Your task to perform on an android device: Go to internet settings Image 0: 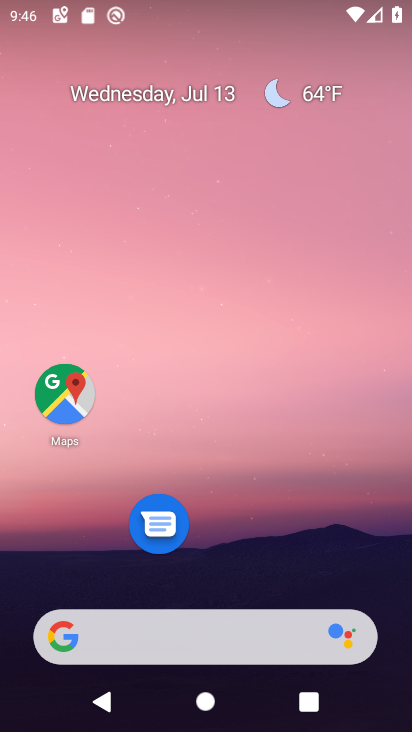
Step 0: drag from (210, 610) to (155, 73)
Your task to perform on an android device: Go to internet settings Image 1: 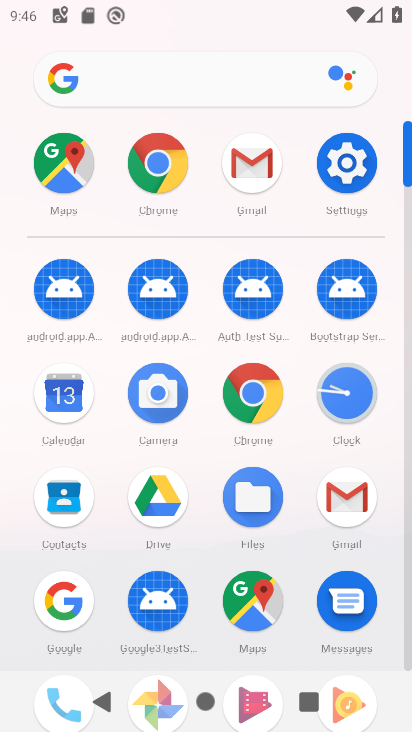
Step 1: click (353, 163)
Your task to perform on an android device: Go to internet settings Image 2: 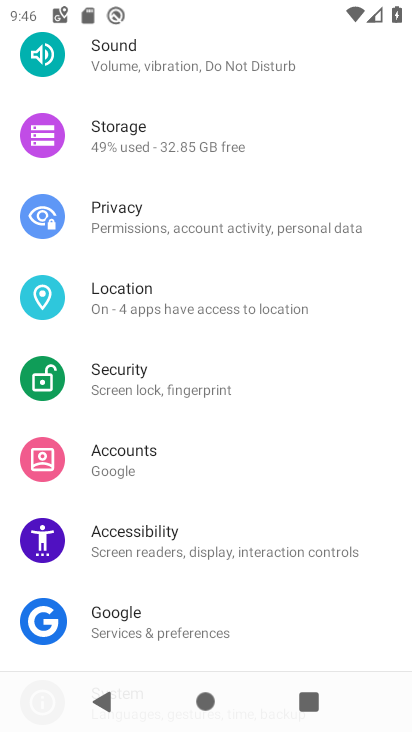
Step 2: drag from (150, 173) to (174, 386)
Your task to perform on an android device: Go to internet settings Image 3: 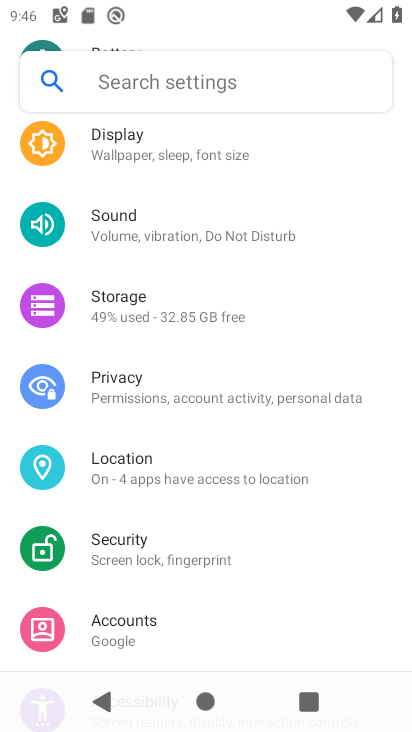
Step 3: drag from (163, 238) to (206, 477)
Your task to perform on an android device: Go to internet settings Image 4: 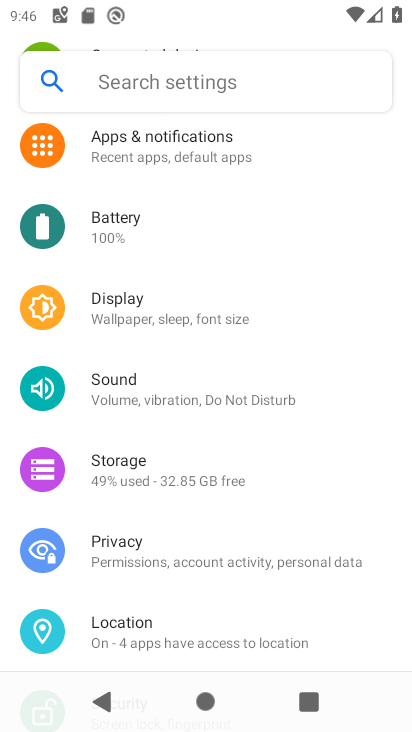
Step 4: drag from (154, 195) to (187, 583)
Your task to perform on an android device: Go to internet settings Image 5: 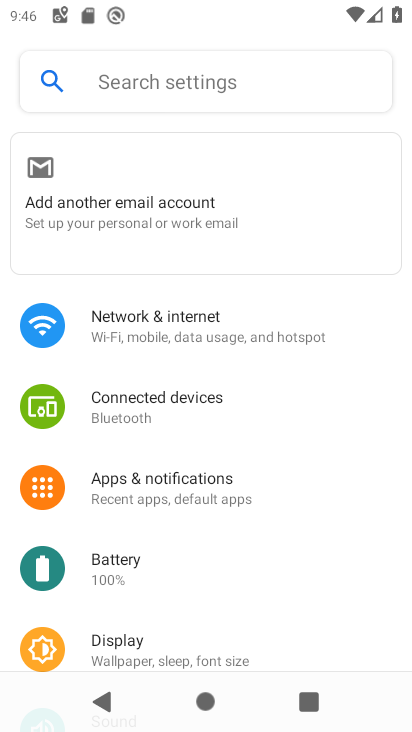
Step 5: click (134, 310)
Your task to perform on an android device: Go to internet settings Image 6: 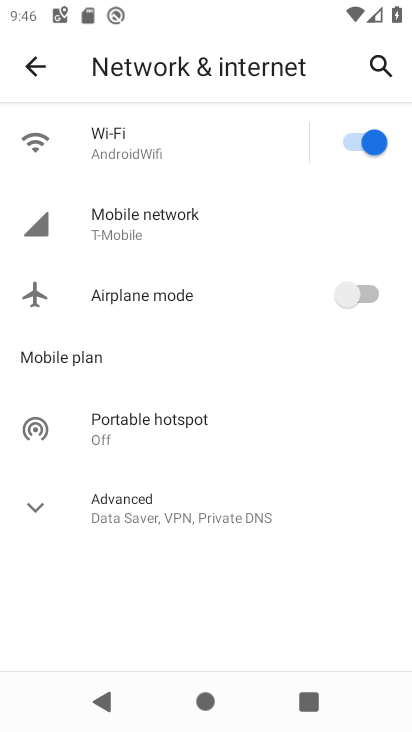
Step 6: click (132, 219)
Your task to perform on an android device: Go to internet settings Image 7: 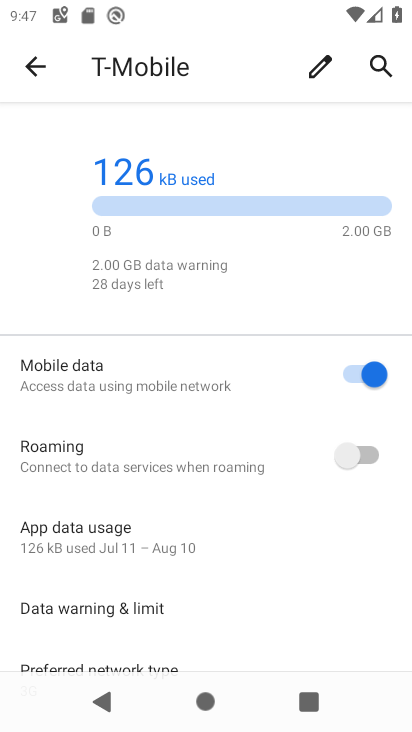
Step 7: task complete